Your task to perform on an android device: See recent photos Image 0: 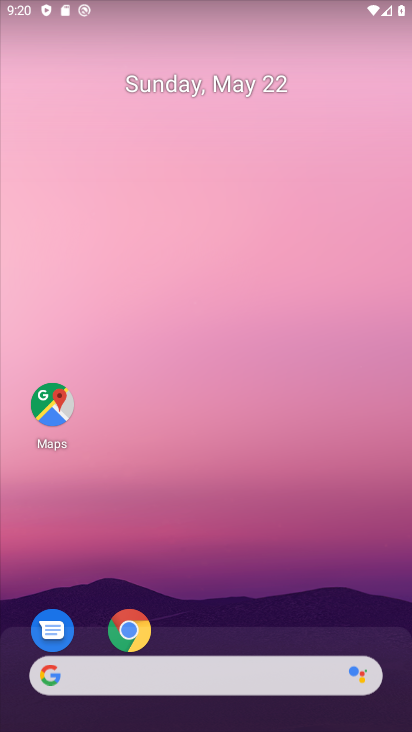
Step 0: drag from (375, 627) to (366, 142)
Your task to perform on an android device: See recent photos Image 1: 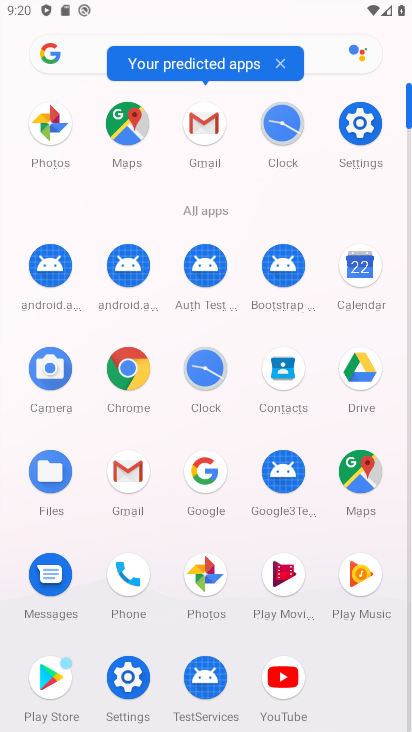
Step 1: click (211, 589)
Your task to perform on an android device: See recent photos Image 2: 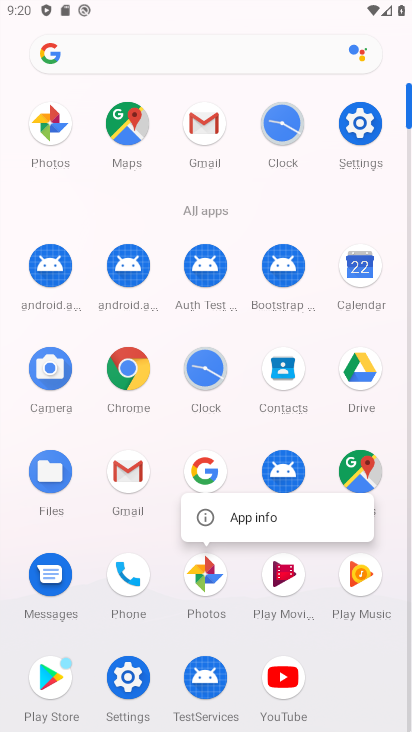
Step 2: click (211, 589)
Your task to perform on an android device: See recent photos Image 3: 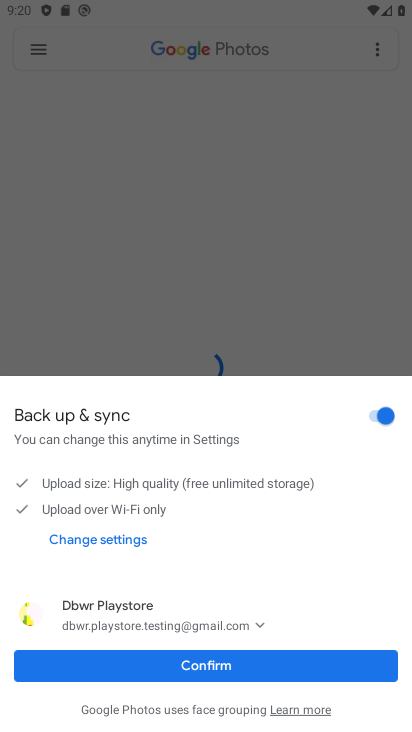
Step 3: click (260, 676)
Your task to perform on an android device: See recent photos Image 4: 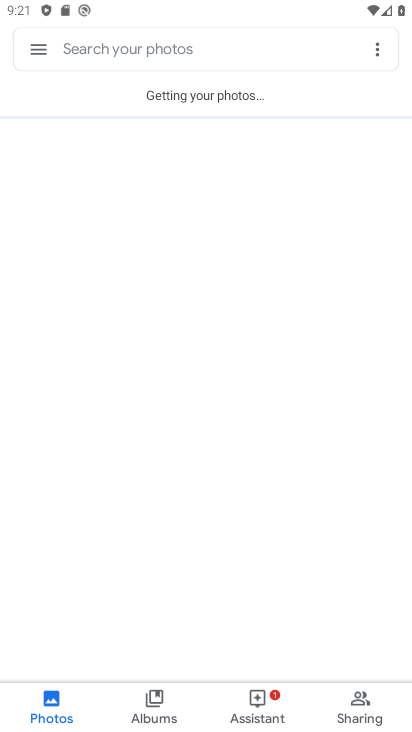
Step 4: task complete